Your task to perform on an android device: Open Wikipedia Image 0: 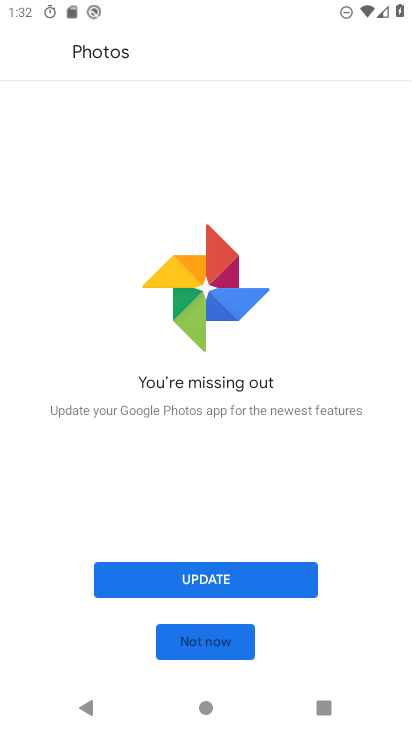
Step 0: click (229, 637)
Your task to perform on an android device: Open Wikipedia Image 1: 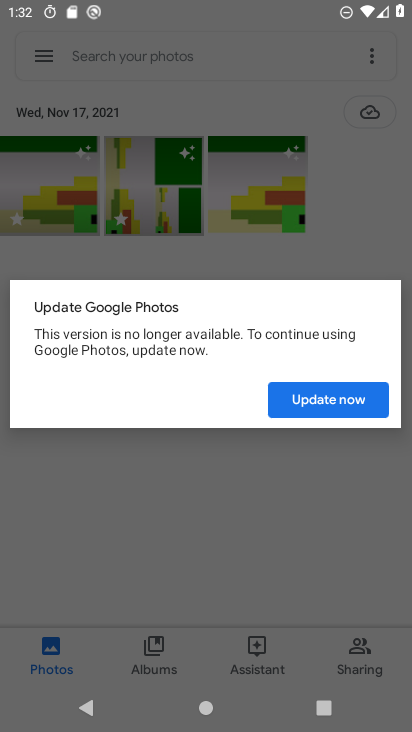
Step 1: press home button
Your task to perform on an android device: Open Wikipedia Image 2: 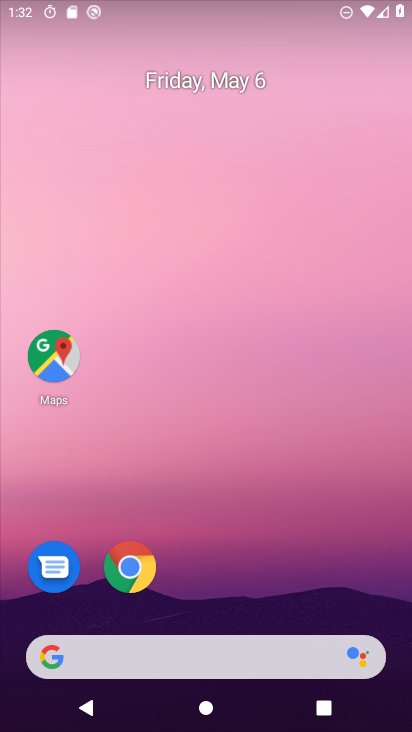
Step 2: drag from (296, 682) to (257, 226)
Your task to perform on an android device: Open Wikipedia Image 3: 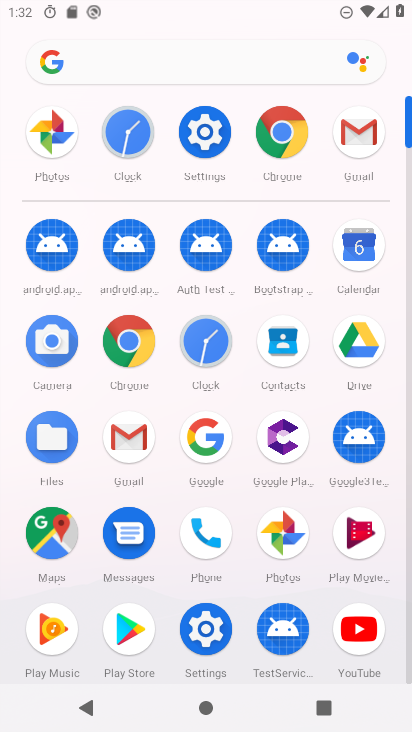
Step 3: click (282, 131)
Your task to perform on an android device: Open Wikipedia Image 4: 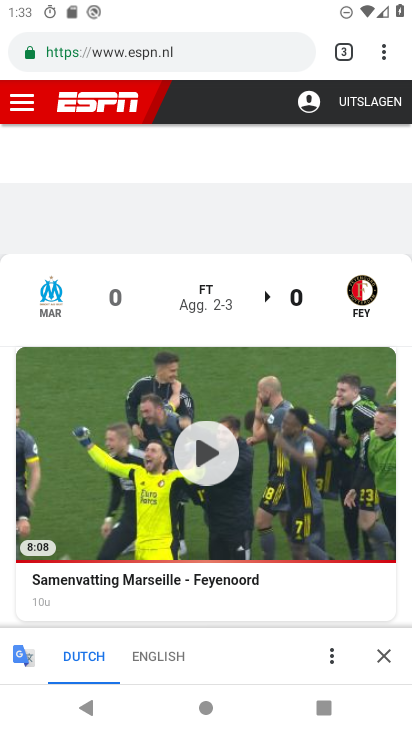
Step 4: click (379, 67)
Your task to perform on an android device: Open Wikipedia Image 5: 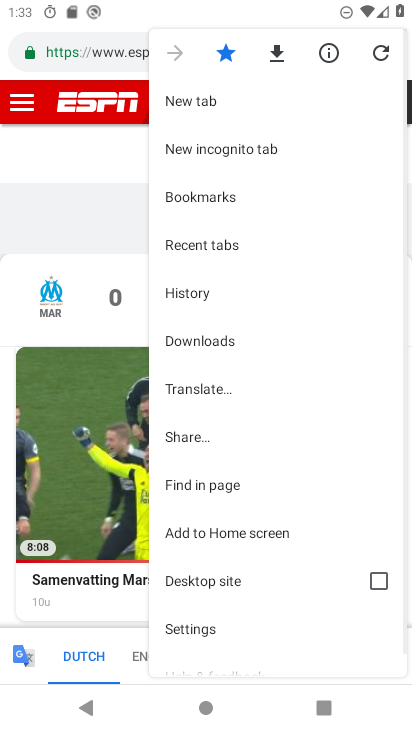
Step 5: click (223, 95)
Your task to perform on an android device: Open Wikipedia Image 6: 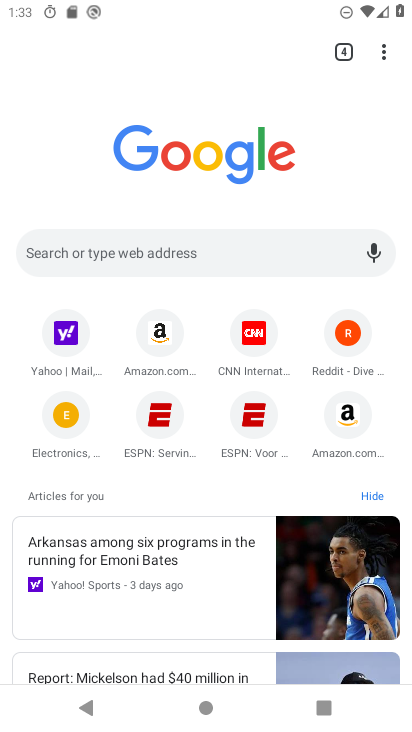
Step 6: click (120, 245)
Your task to perform on an android device: Open Wikipedia Image 7: 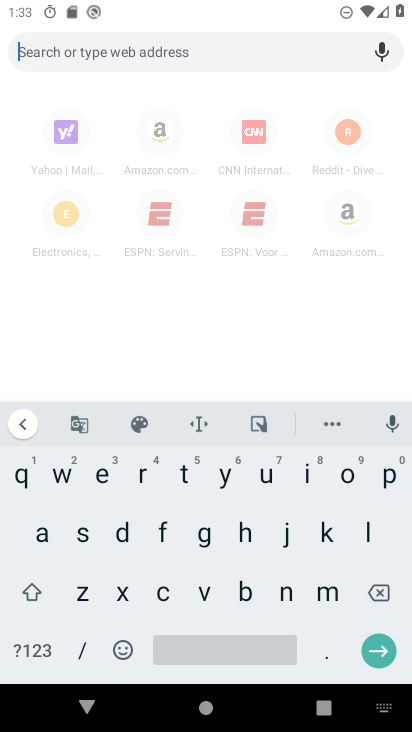
Step 7: click (64, 471)
Your task to perform on an android device: Open Wikipedia Image 8: 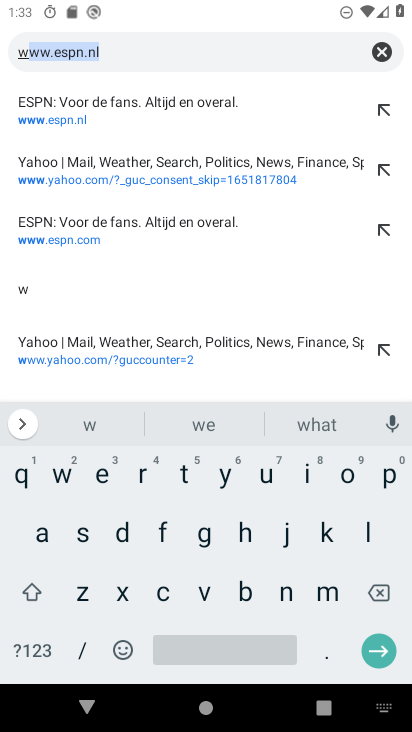
Step 8: click (307, 477)
Your task to perform on an android device: Open Wikipedia Image 9: 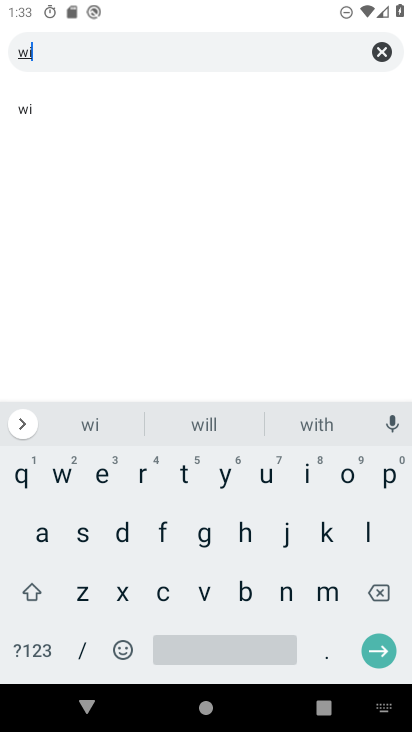
Step 9: click (328, 532)
Your task to perform on an android device: Open Wikipedia Image 10: 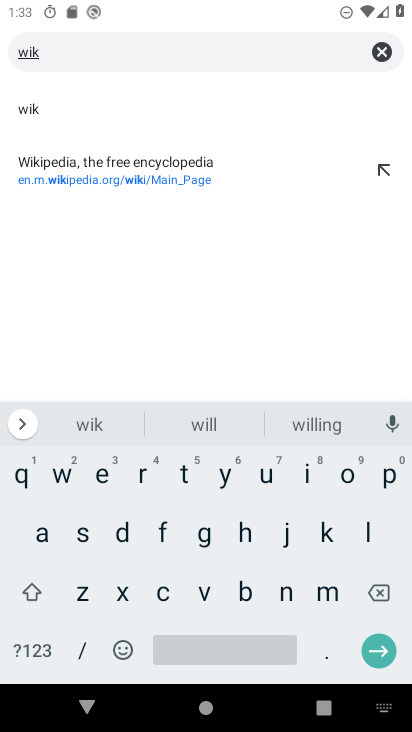
Step 10: click (116, 161)
Your task to perform on an android device: Open Wikipedia Image 11: 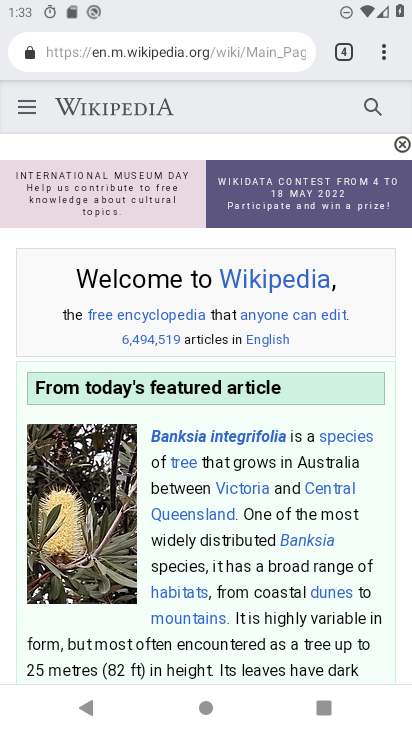
Step 11: task complete